Your task to perform on an android device: Open the calendar and show me this week's events Image 0: 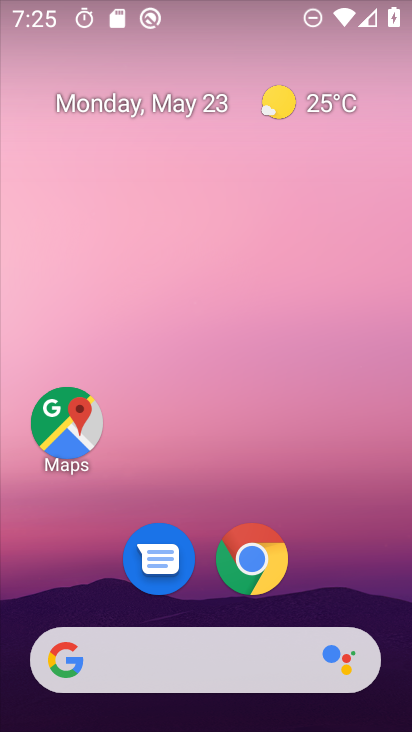
Step 0: drag from (395, 657) to (274, 23)
Your task to perform on an android device: Open the calendar and show me this week's events Image 1: 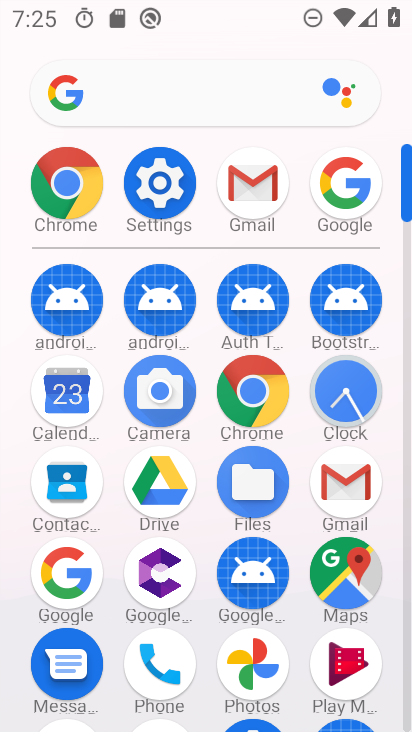
Step 1: click (61, 415)
Your task to perform on an android device: Open the calendar and show me this week's events Image 2: 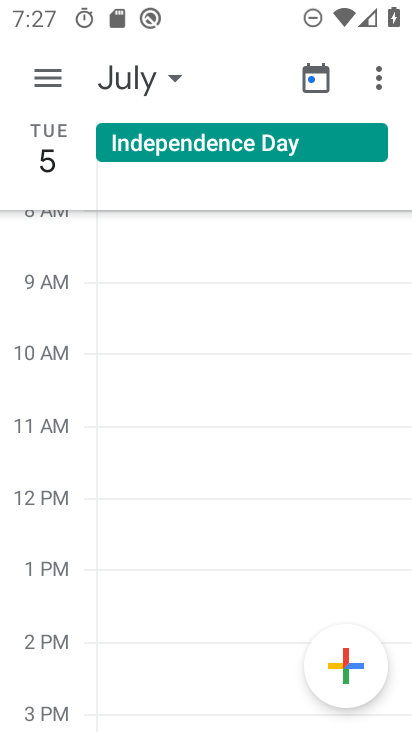
Step 2: task complete